Your task to perform on an android device: change the clock display to show seconds Image 0: 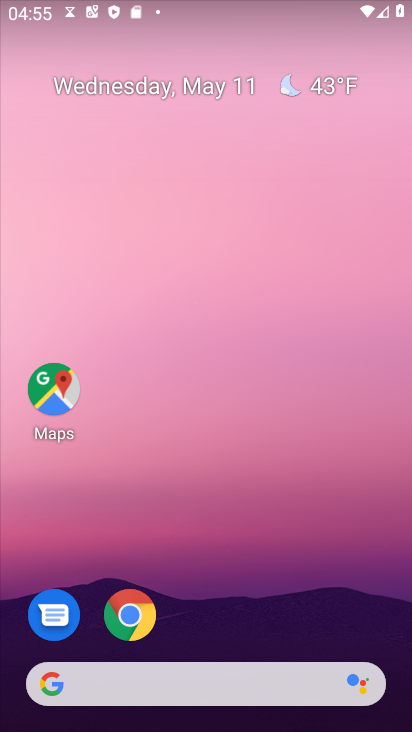
Step 0: drag from (252, 566) to (193, 0)
Your task to perform on an android device: change the clock display to show seconds Image 1: 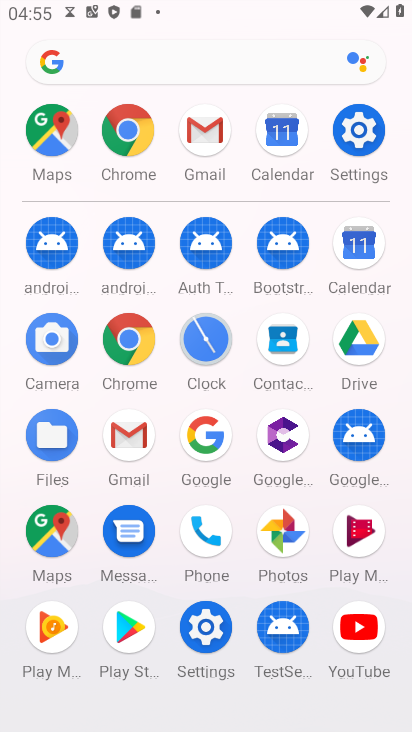
Step 1: drag from (13, 556) to (0, 281)
Your task to perform on an android device: change the clock display to show seconds Image 2: 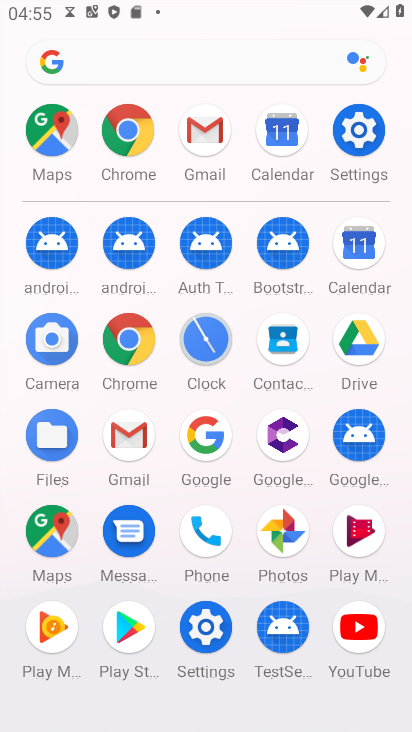
Step 2: click (204, 336)
Your task to perform on an android device: change the clock display to show seconds Image 3: 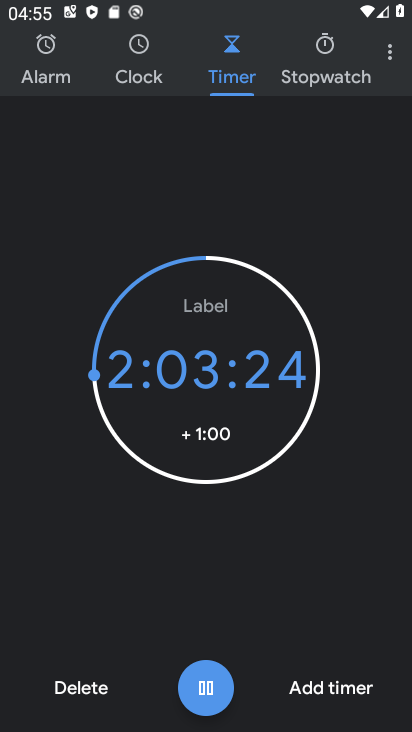
Step 3: drag from (382, 57) to (277, 99)
Your task to perform on an android device: change the clock display to show seconds Image 4: 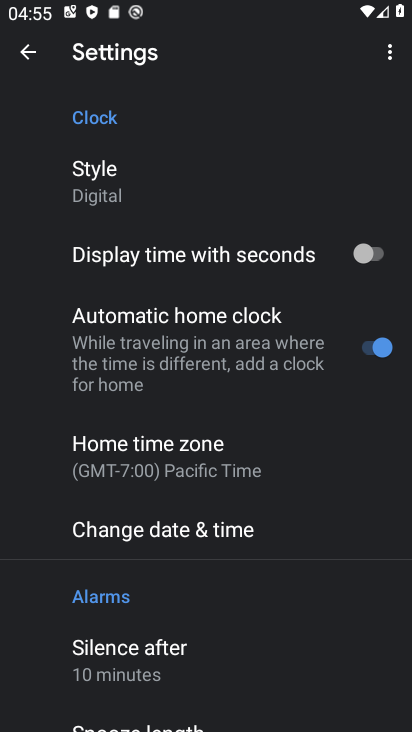
Step 4: click (361, 239)
Your task to perform on an android device: change the clock display to show seconds Image 5: 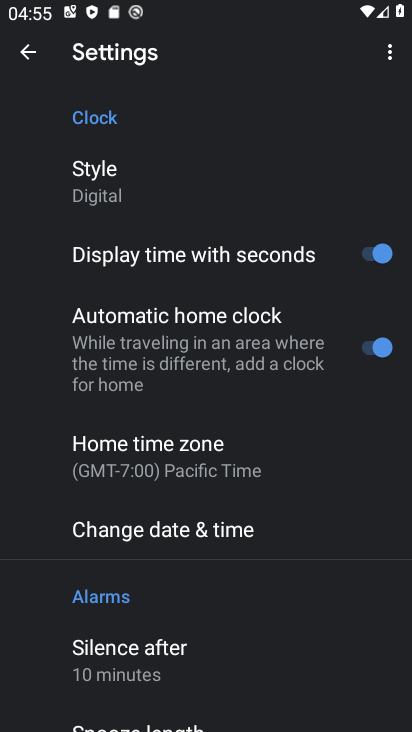
Step 5: task complete